Your task to perform on an android device: Go to display settings Image 0: 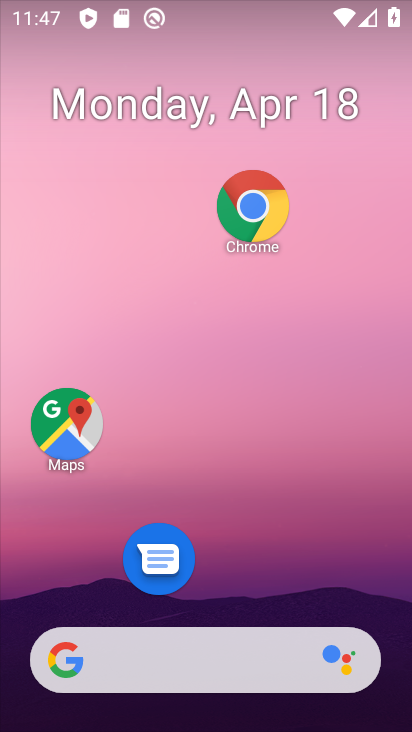
Step 0: drag from (376, 616) to (373, 85)
Your task to perform on an android device: Go to display settings Image 1: 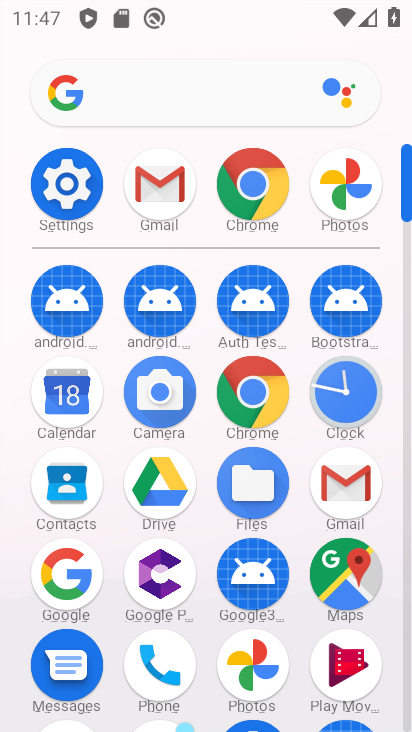
Step 1: drag from (292, 618) to (294, 243)
Your task to perform on an android device: Go to display settings Image 2: 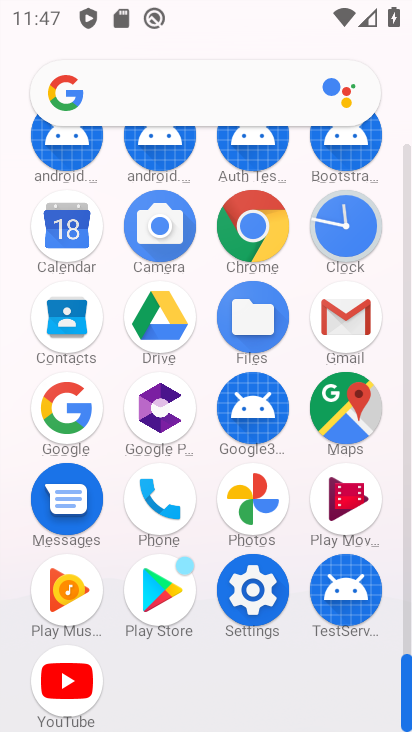
Step 2: click (231, 595)
Your task to perform on an android device: Go to display settings Image 3: 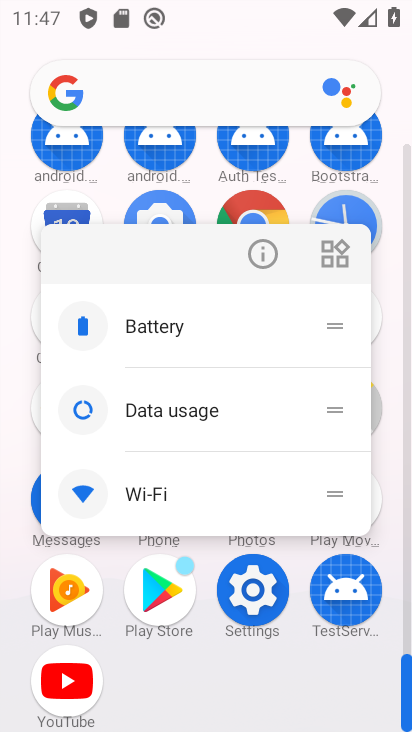
Step 3: click (253, 598)
Your task to perform on an android device: Go to display settings Image 4: 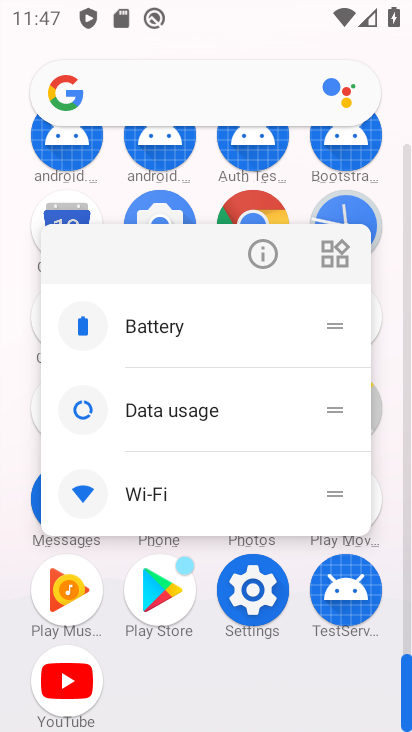
Step 4: click (253, 598)
Your task to perform on an android device: Go to display settings Image 5: 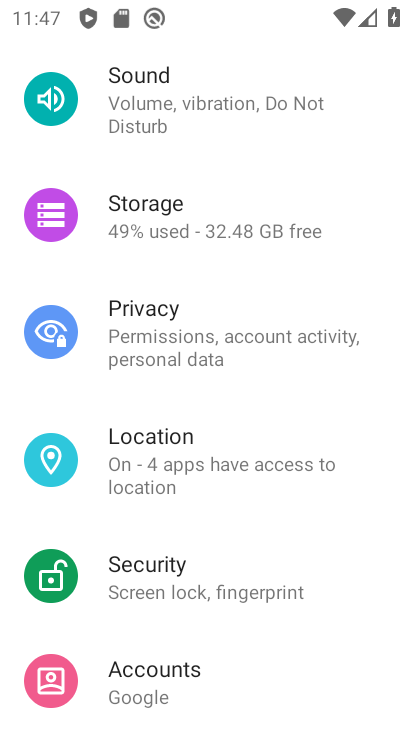
Step 5: drag from (231, 703) to (304, 405)
Your task to perform on an android device: Go to display settings Image 6: 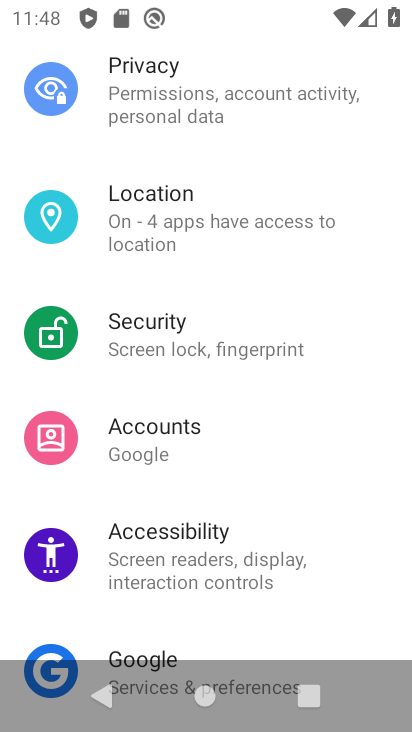
Step 6: drag from (246, 638) to (279, 237)
Your task to perform on an android device: Go to display settings Image 7: 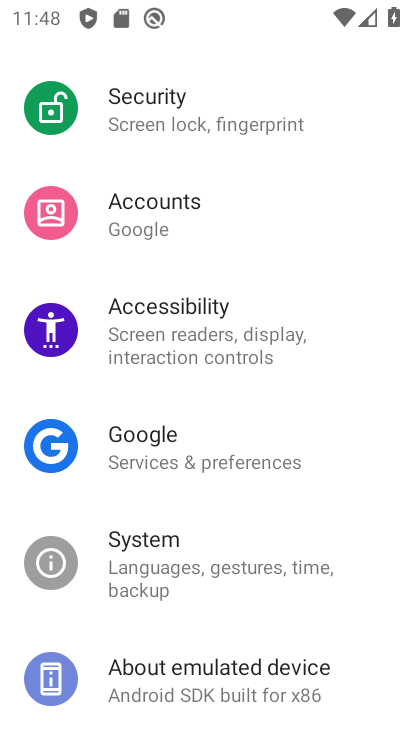
Step 7: drag from (295, 248) to (289, 643)
Your task to perform on an android device: Go to display settings Image 8: 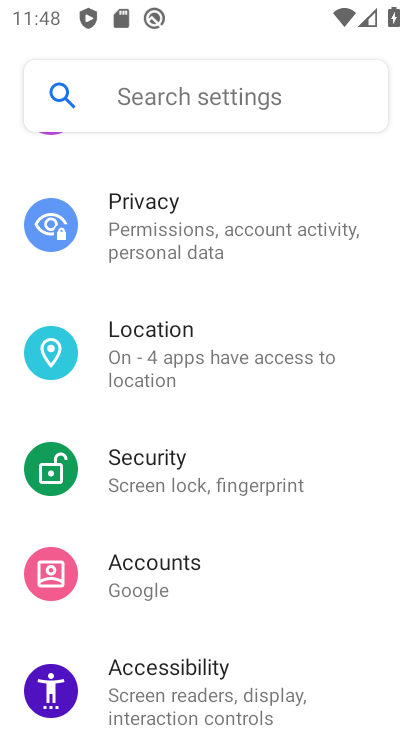
Step 8: drag from (289, 290) to (262, 684)
Your task to perform on an android device: Go to display settings Image 9: 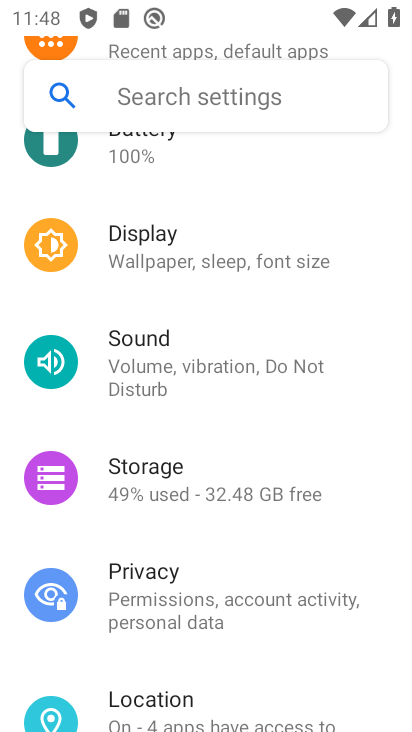
Step 9: click (212, 257)
Your task to perform on an android device: Go to display settings Image 10: 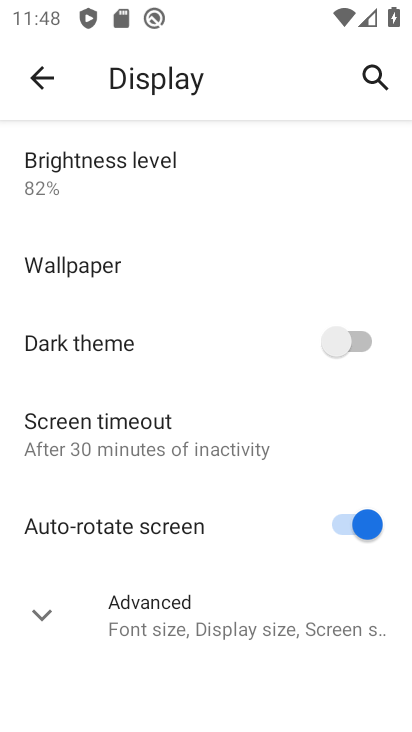
Step 10: click (203, 628)
Your task to perform on an android device: Go to display settings Image 11: 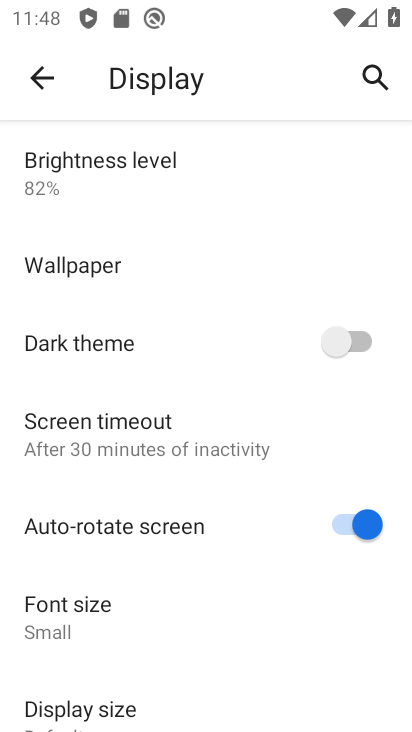
Step 11: task complete